Your task to perform on an android device: Open my contact list Image 0: 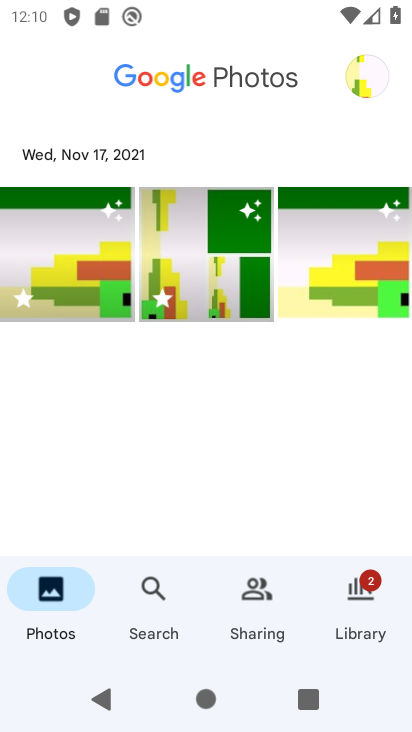
Step 0: press back button
Your task to perform on an android device: Open my contact list Image 1: 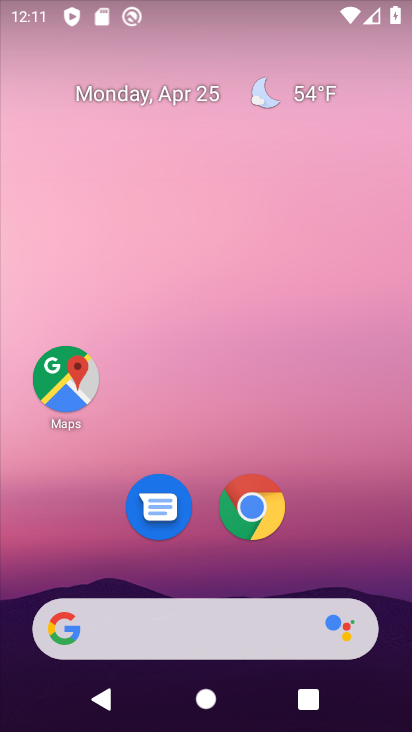
Step 1: drag from (352, 533) to (271, 67)
Your task to perform on an android device: Open my contact list Image 2: 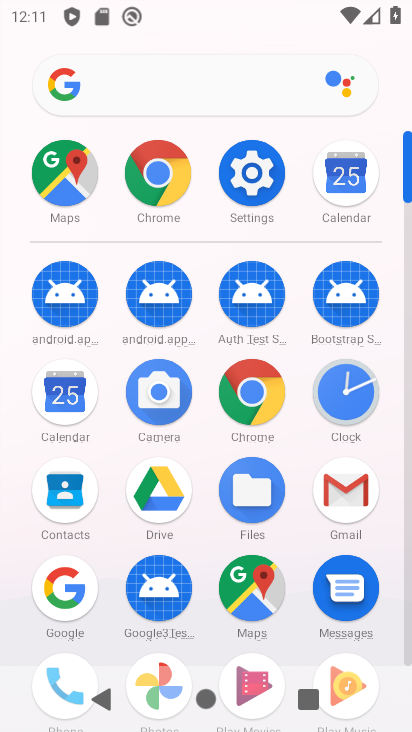
Step 2: drag from (24, 526) to (22, 289)
Your task to perform on an android device: Open my contact list Image 3: 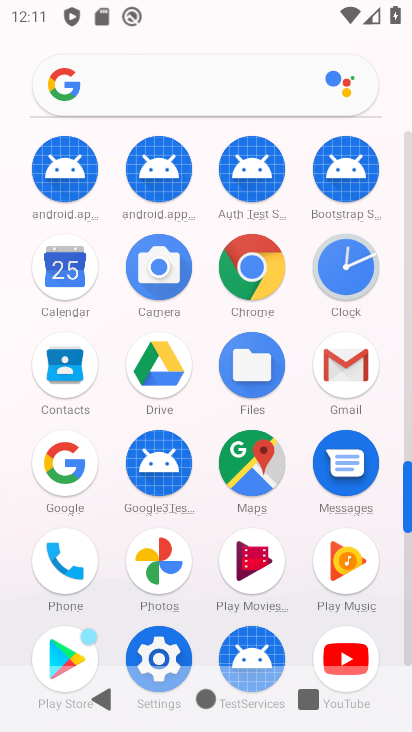
Step 3: drag from (19, 586) to (19, 357)
Your task to perform on an android device: Open my contact list Image 4: 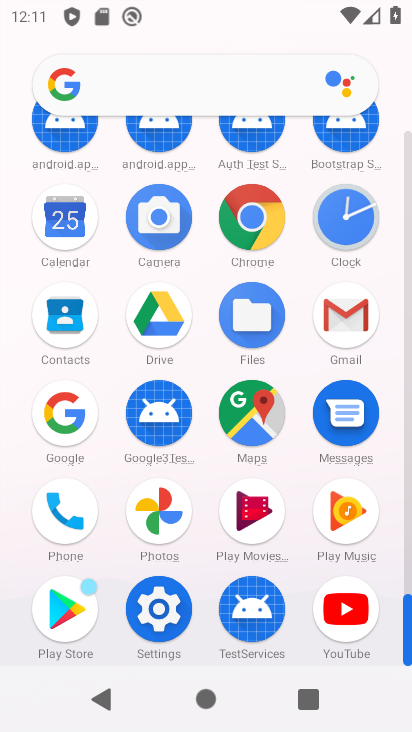
Step 4: click (63, 298)
Your task to perform on an android device: Open my contact list Image 5: 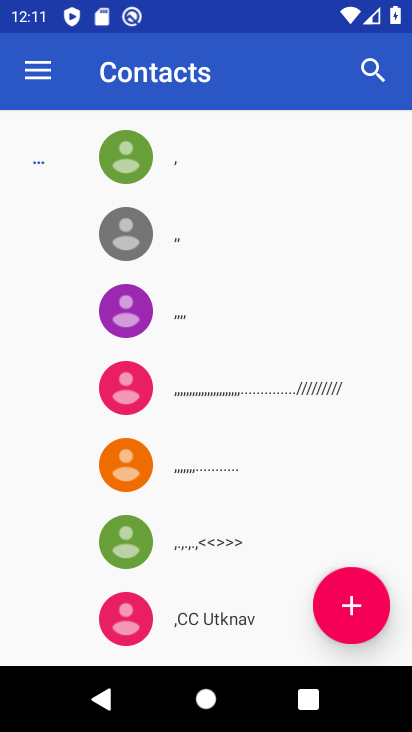
Step 5: task complete